Your task to perform on an android device: turn on notifications settings in the gmail app Image 0: 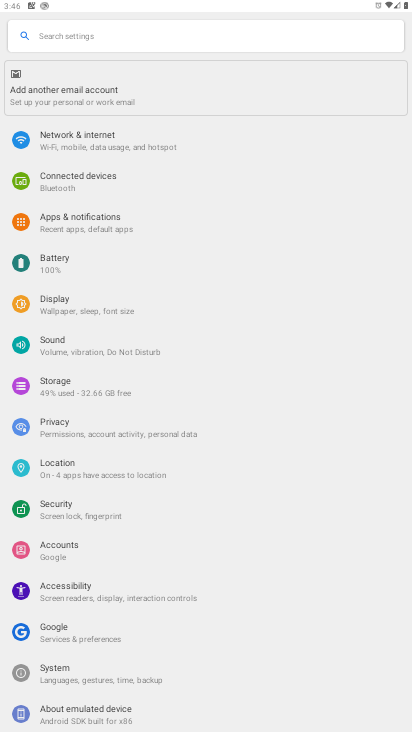
Step 0: press home button
Your task to perform on an android device: turn on notifications settings in the gmail app Image 1: 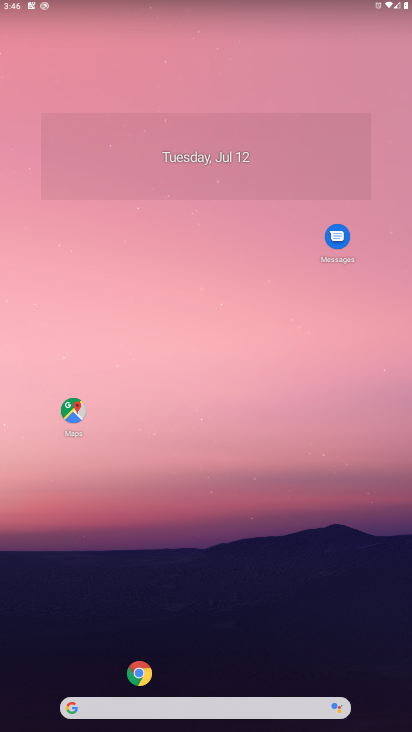
Step 1: drag from (14, 721) to (260, 268)
Your task to perform on an android device: turn on notifications settings in the gmail app Image 2: 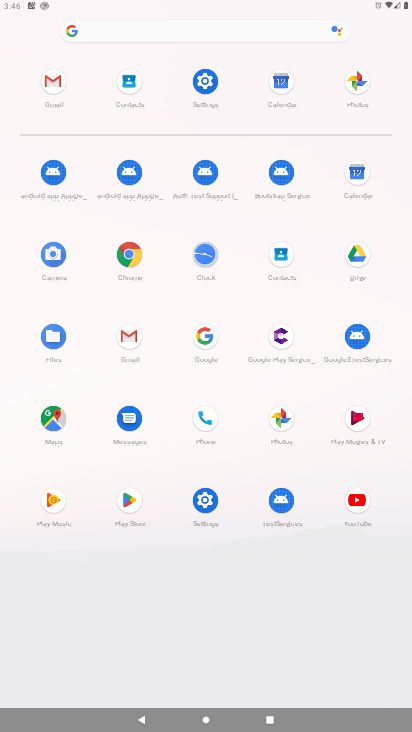
Step 2: click (205, 512)
Your task to perform on an android device: turn on notifications settings in the gmail app Image 3: 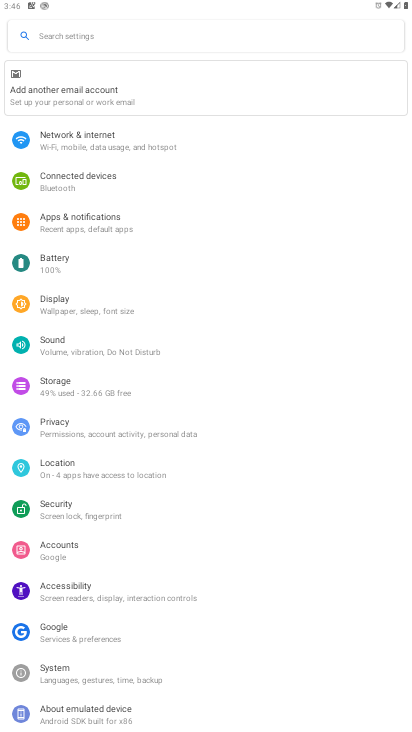
Step 3: task complete